Your task to perform on an android device: Open notification settings Image 0: 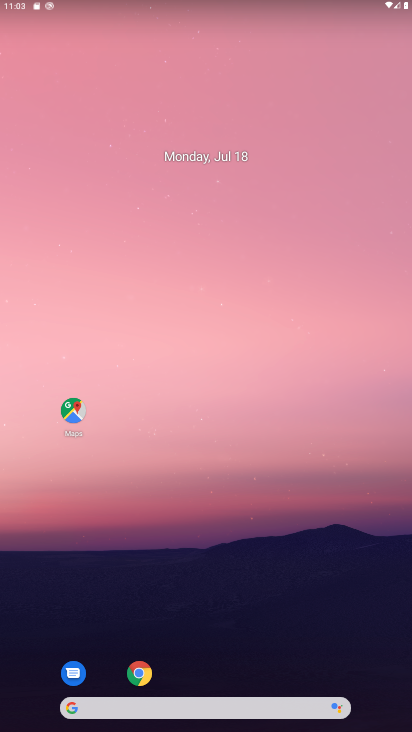
Step 0: drag from (201, 660) to (219, 225)
Your task to perform on an android device: Open notification settings Image 1: 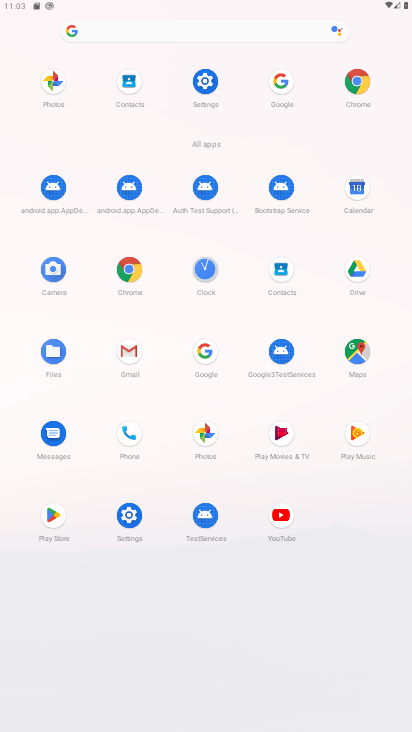
Step 1: click (210, 104)
Your task to perform on an android device: Open notification settings Image 2: 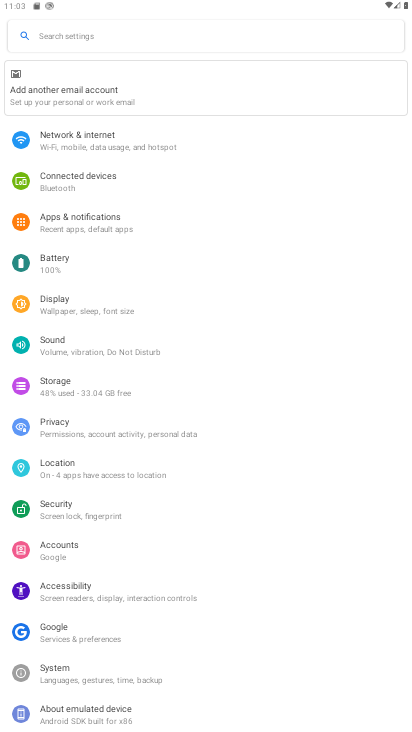
Step 2: click (161, 229)
Your task to perform on an android device: Open notification settings Image 3: 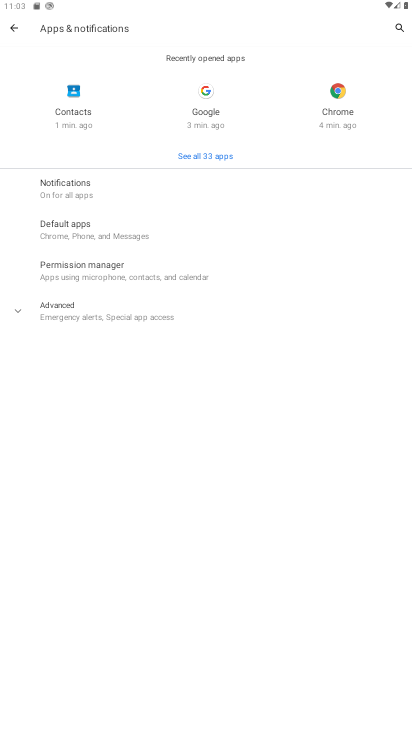
Step 3: click (116, 200)
Your task to perform on an android device: Open notification settings Image 4: 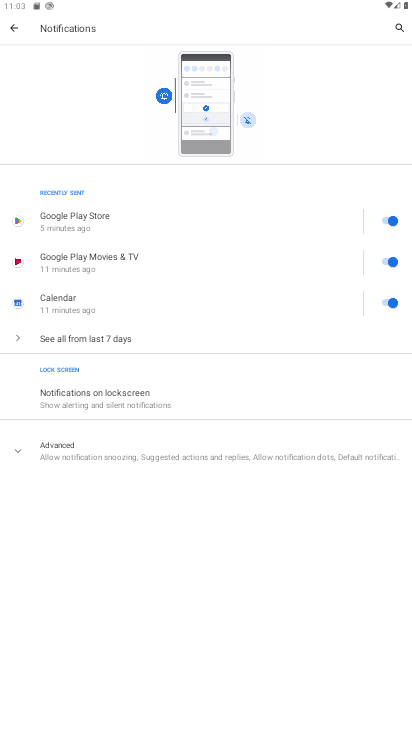
Step 4: task complete